Your task to perform on an android device: change the clock display to digital Image 0: 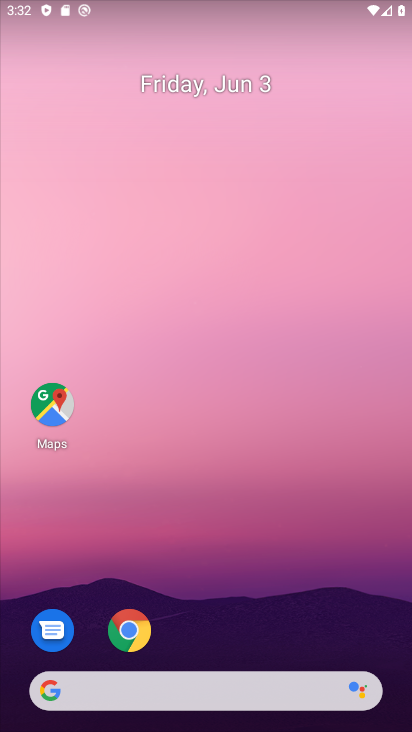
Step 0: drag from (283, 602) to (361, 56)
Your task to perform on an android device: change the clock display to digital Image 1: 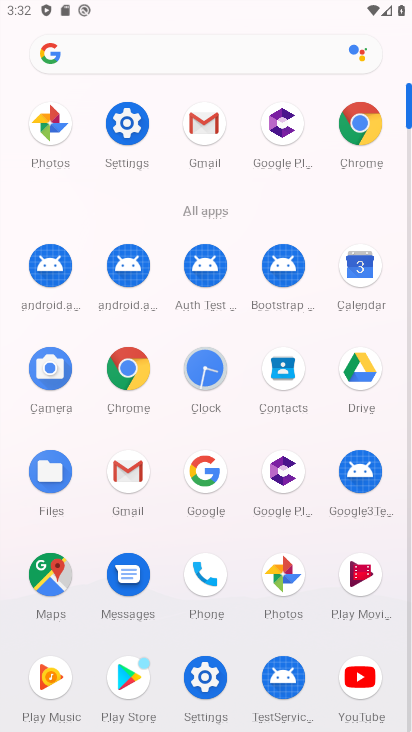
Step 1: click (204, 370)
Your task to perform on an android device: change the clock display to digital Image 2: 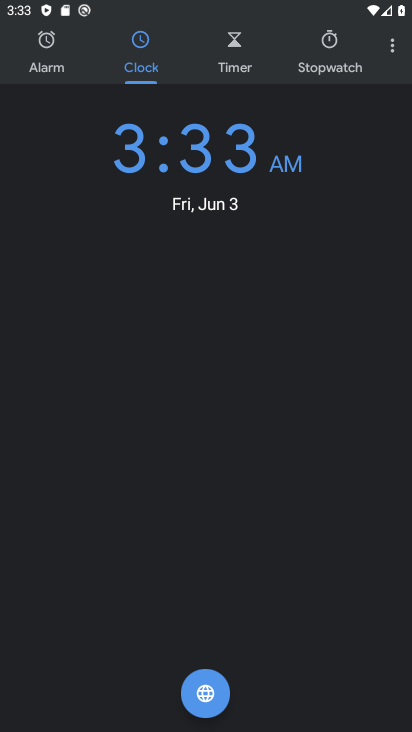
Step 2: click (391, 46)
Your task to perform on an android device: change the clock display to digital Image 3: 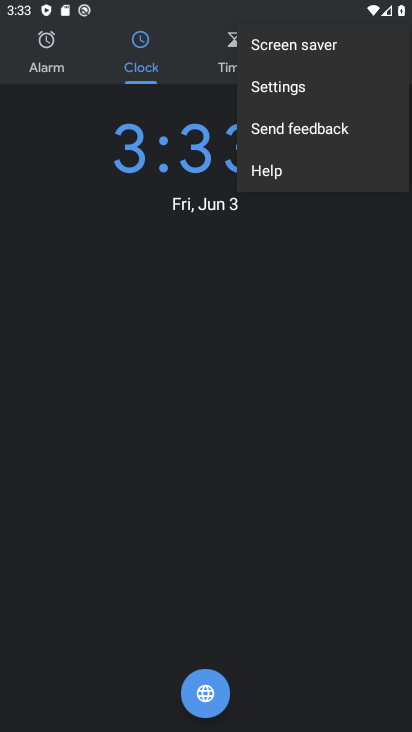
Step 3: click (272, 88)
Your task to perform on an android device: change the clock display to digital Image 4: 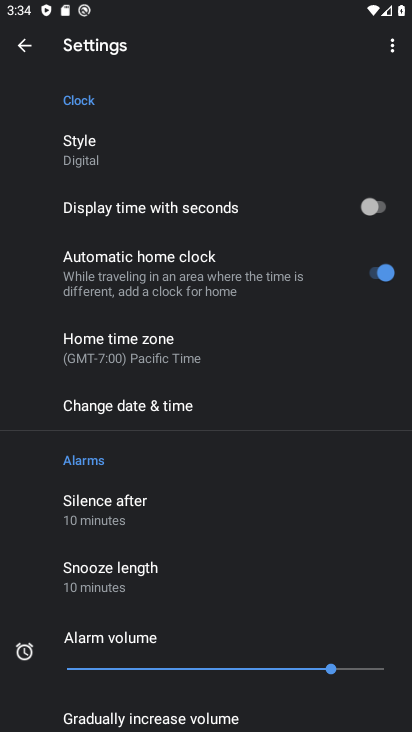
Step 4: task complete